Your task to perform on an android device: What's the weather going to be this weekend? Image 0: 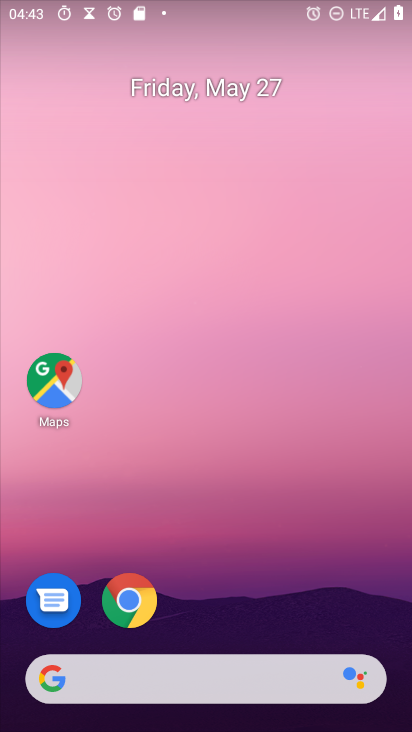
Step 0: drag from (231, 722) to (334, 236)
Your task to perform on an android device: What's the weather going to be this weekend? Image 1: 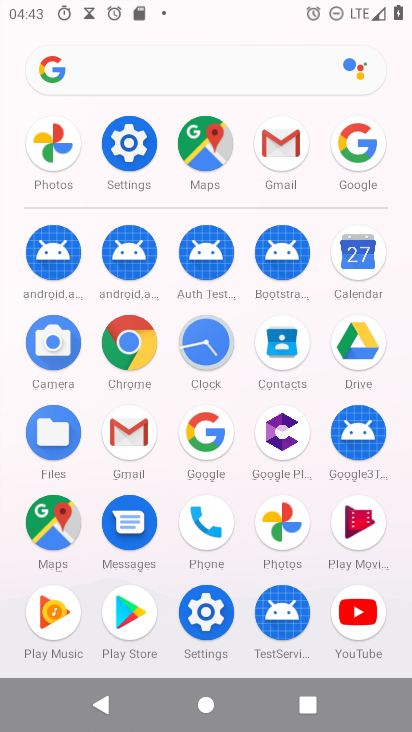
Step 1: click (215, 438)
Your task to perform on an android device: What's the weather going to be this weekend? Image 2: 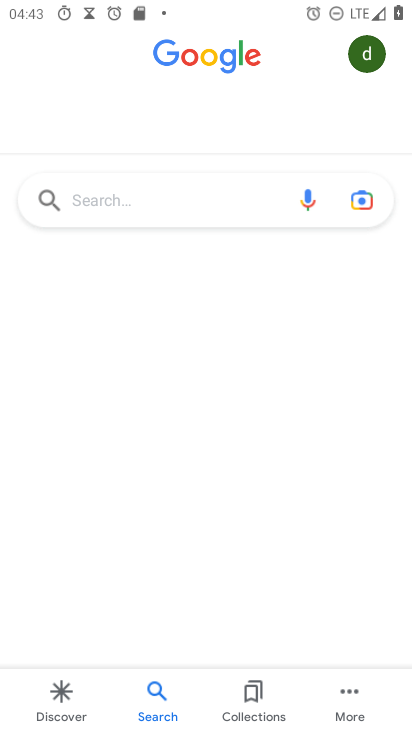
Step 2: click (183, 195)
Your task to perform on an android device: What's the weather going to be this weekend? Image 3: 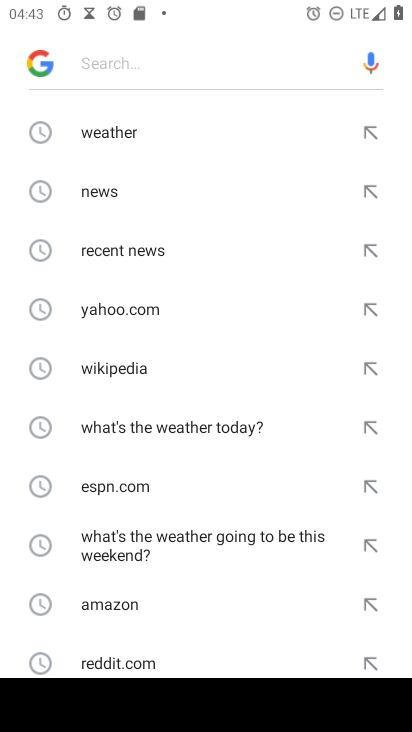
Step 3: click (107, 132)
Your task to perform on an android device: What's the weather going to be this weekend? Image 4: 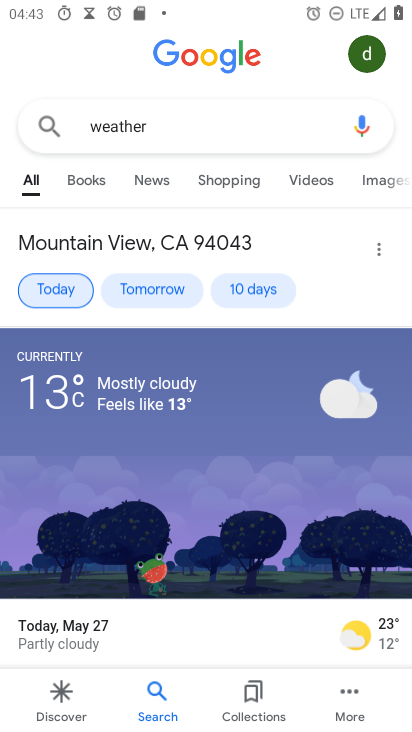
Step 4: click (259, 287)
Your task to perform on an android device: What's the weather going to be this weekend? Image 5: 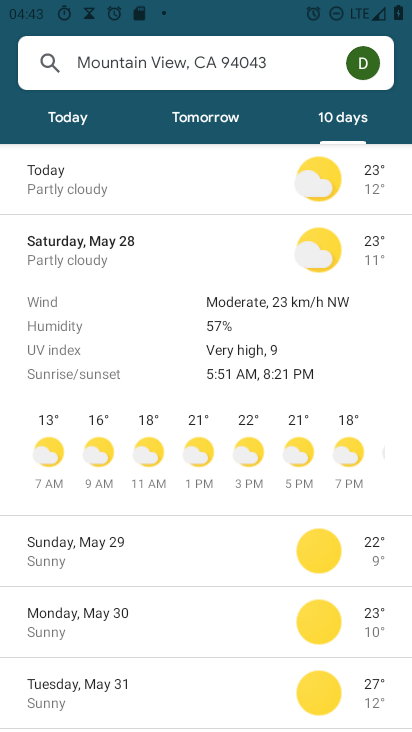
Step 5: task complete